Your task to perform on an android device: change notifications settings Image 0: 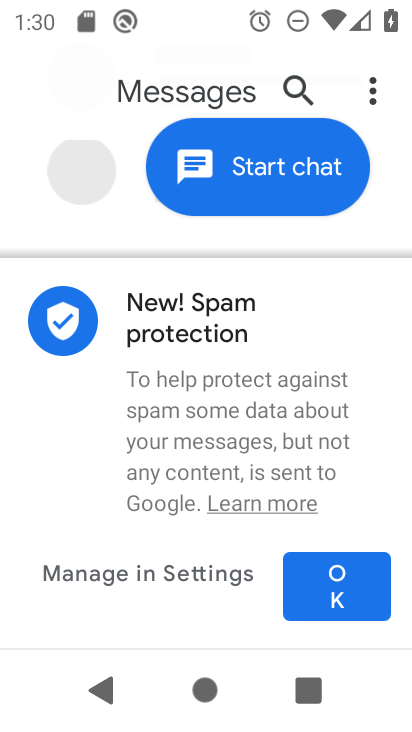
Step 0: press home button
Your task to perform on an android device: change notifications settings Image 1: 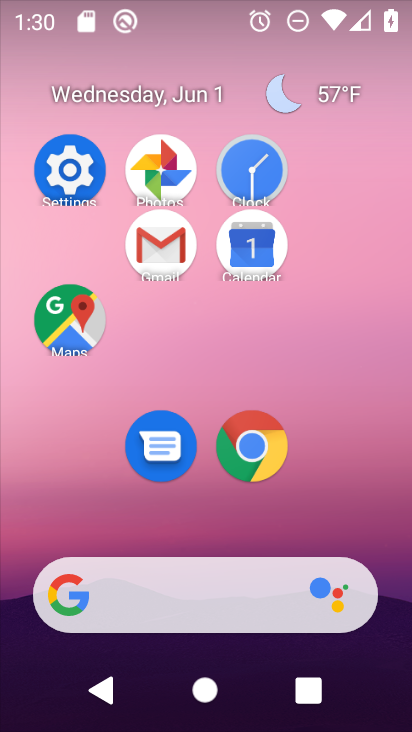
Step 1: click (74, 190)
Your task to perform on an android device: change notifications settings Image 2: 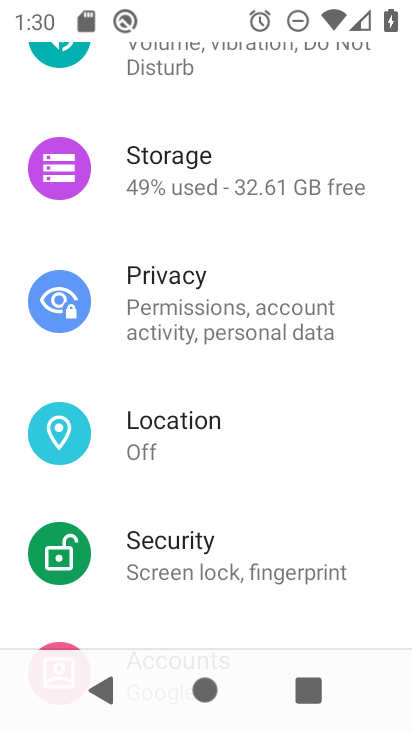
Step 2: drag from (306, 267) to (293, 679)
Your task to perform on an android device: change notifications settings Image 3: 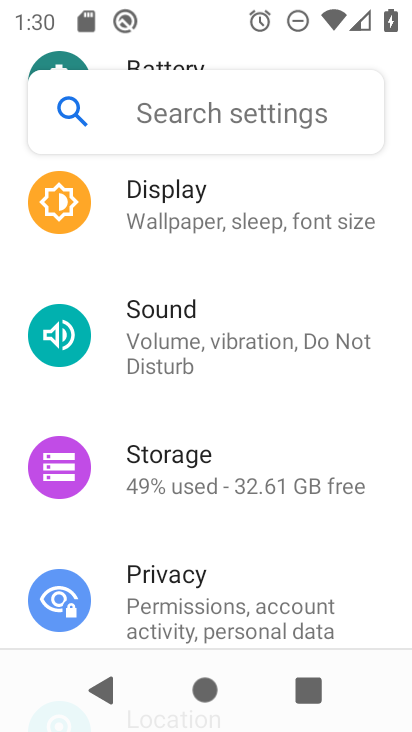
Step 3: drag from (311, 207) to (291, 586)
Your task to perform on an android device: change notifications settings Image 4: 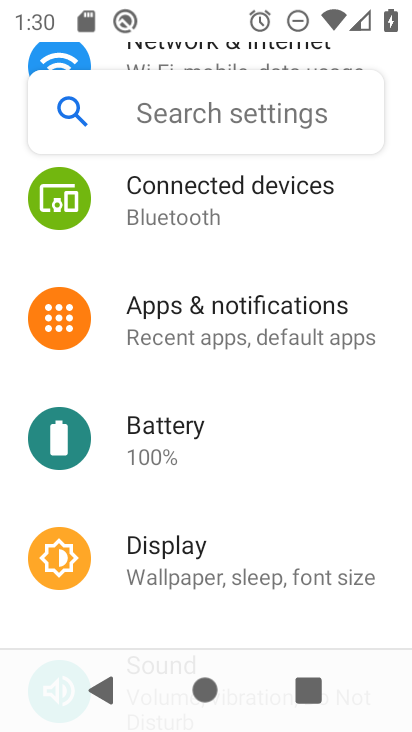
Step 4: click (301, 349)
Your task to perform on an android device: change notifications settings Image 5: 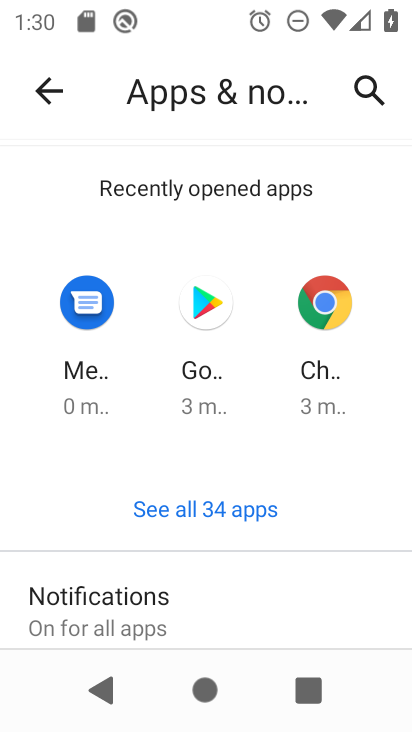
Step 5: click (227, 596)
Your task to perform on an android device: change notifications settings Image 6: 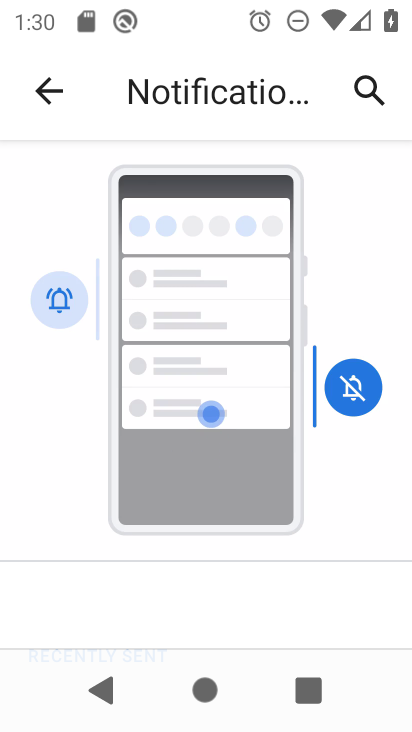
Step 6: drag from (332, 563) to (359, 66)
Your task to perform on an android device: change notifications settings Image 7: 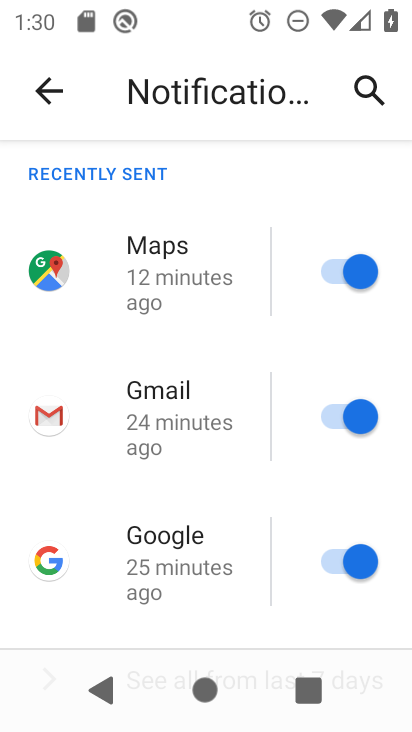
Step 7: drag from (293, 508) to (372, 172)
Your task to perform on an android device: change notifications settings Image 8: 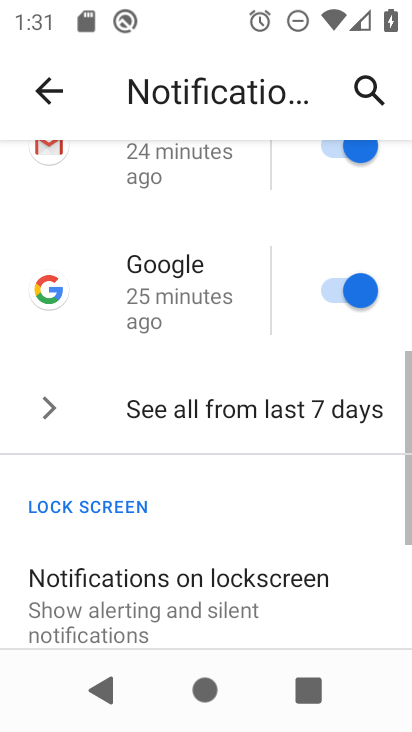
Step 8: drag from (274, 507) to (267, 154)
Your task to perform on an android device: change notifications settings Image 9: 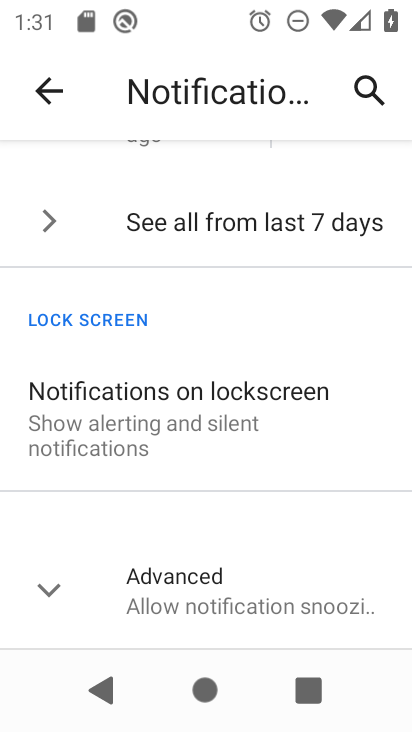
Step 9: drag from (264, 603) to (304, 217)
Your task to perform on an android device: change notifications settings Image 10: 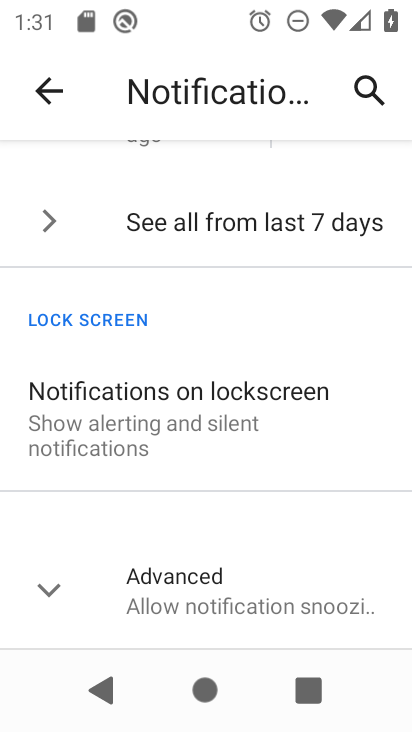
Step 10: click (223, 593)
Your task to perform on an android device: change notifications settings Image 11: 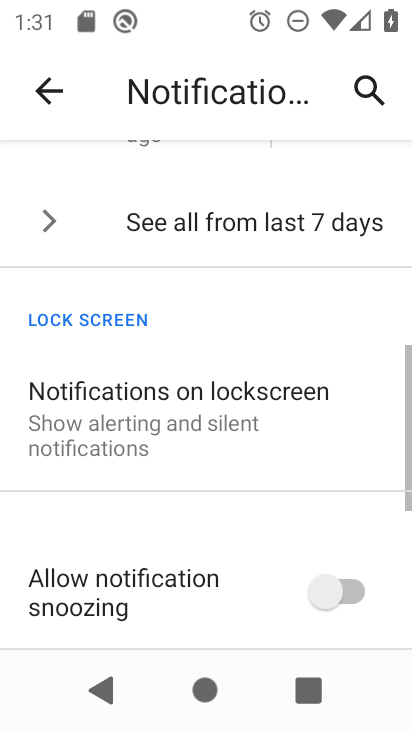
Step 11: drag from (228, 592) to (263, 259)
Your task to perform on an android device: change notifications settings Image 12: 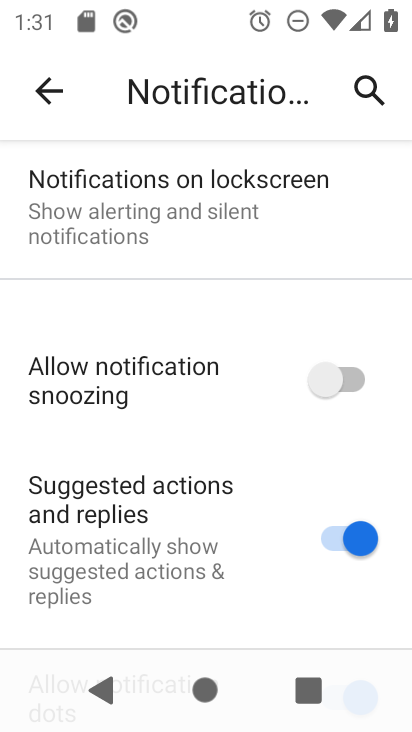
Step 12: click (334, 376)
Your task to perform on an android device: change notifications settings Image 13: 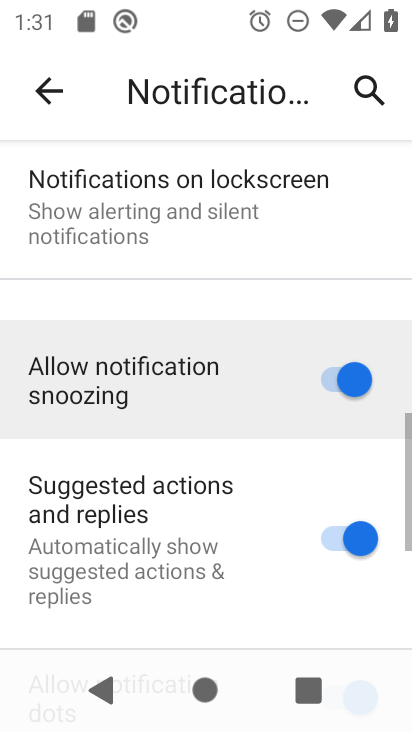
Step 13: click (347, 539)
Your task to perform on an android device: change notifications settings Image 14: 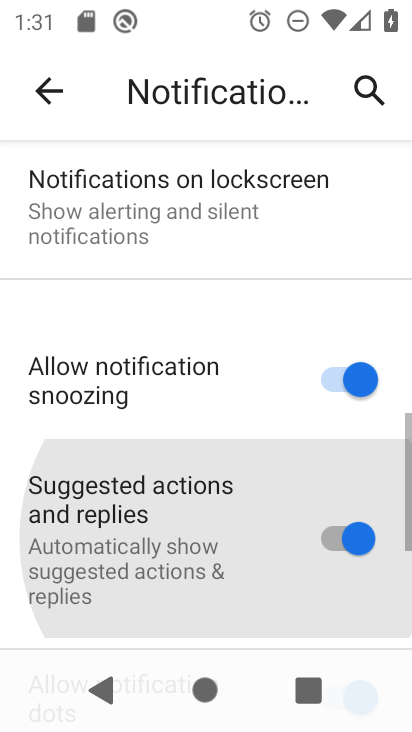
Step 14: drag from (266, 532) to (271, 187)
Your task to perform on an android device: change notifications settings Image 15: 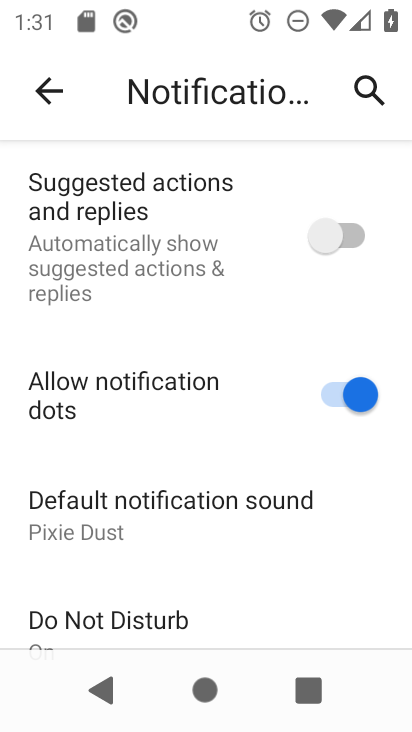
Step 15: click (367, 394)
Your task to perform on an android device: change notifications settings Image 16: 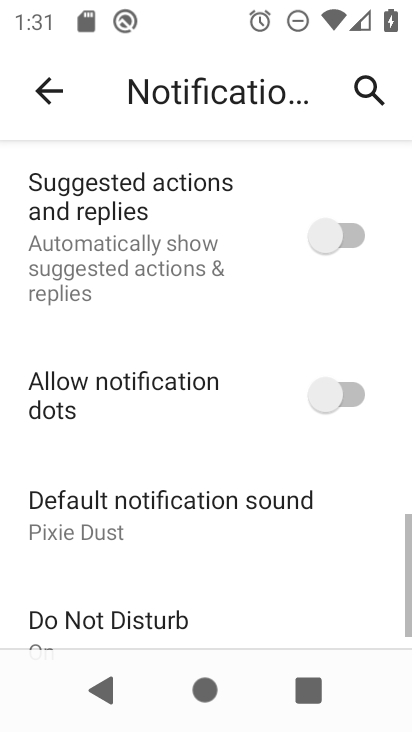
Step 16: task complete